Your task to perform on an android device: turn off data saver in the chrome app Image 0: 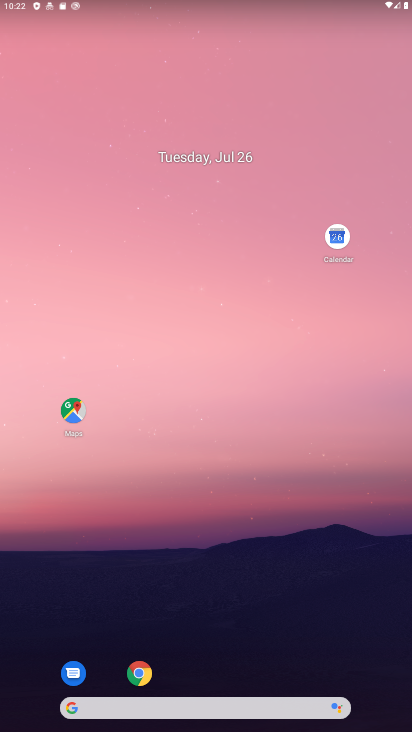
Step 0: click (199, 9)
Your task to perform on an android device: turn off data saver in the chrome app Image 1: 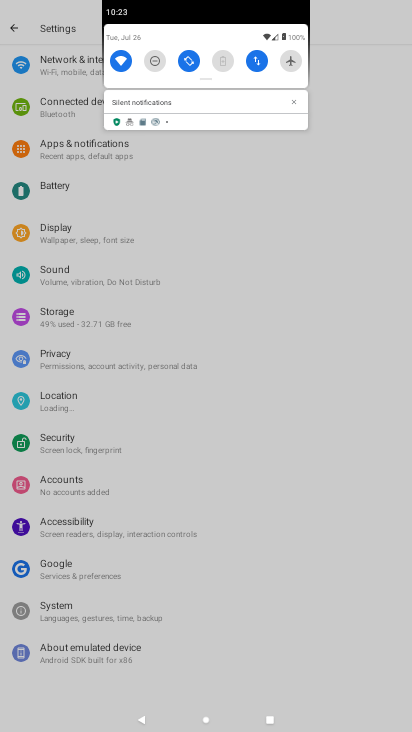
Step 1: click (139, 83)
Your task to perform on an android device: turn off data saver in the chrome app Image 2: 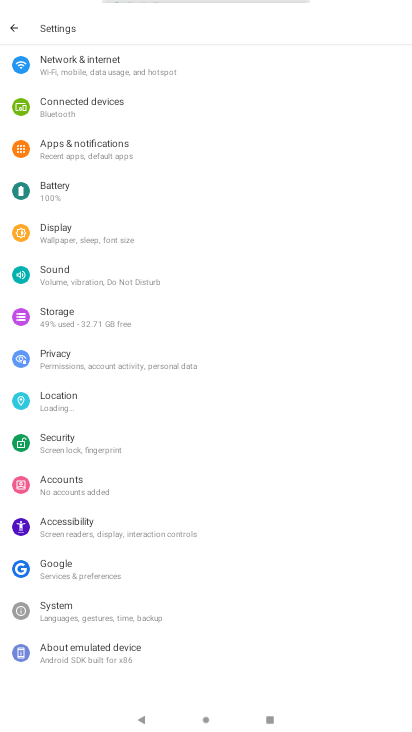
Step 2: click (181, 19)
Your task to perform on an android device: turn off data saver in the chrome app Image 3: 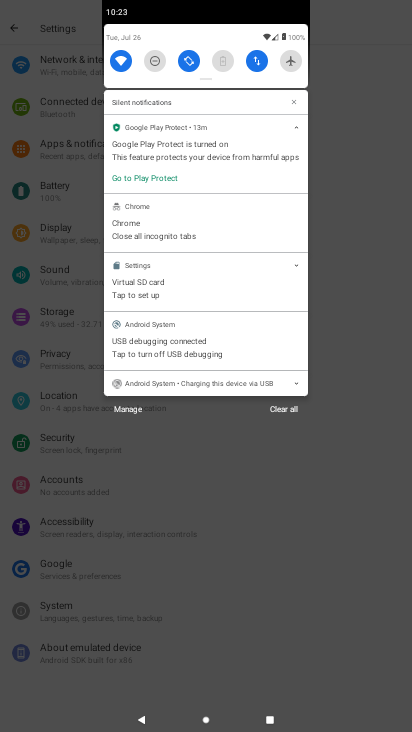
Step 3: click (352, 240)
Your task to perform on an android device: turn off data saver in the chrome app Image 4: 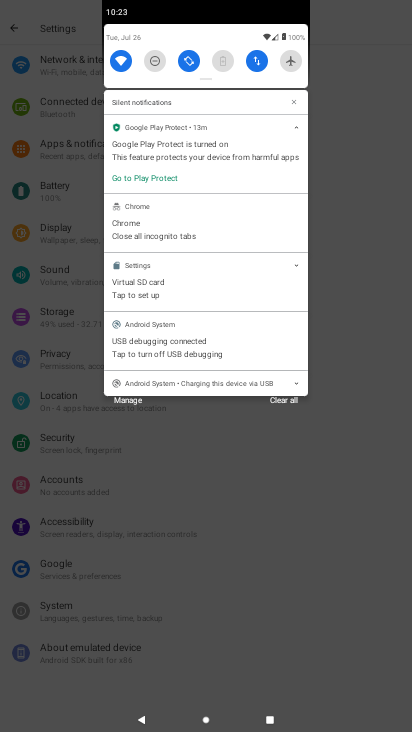
Step 4: click (357, 242)
Your task to perform on an android device: turn off data saver in the chrome app Image 5: 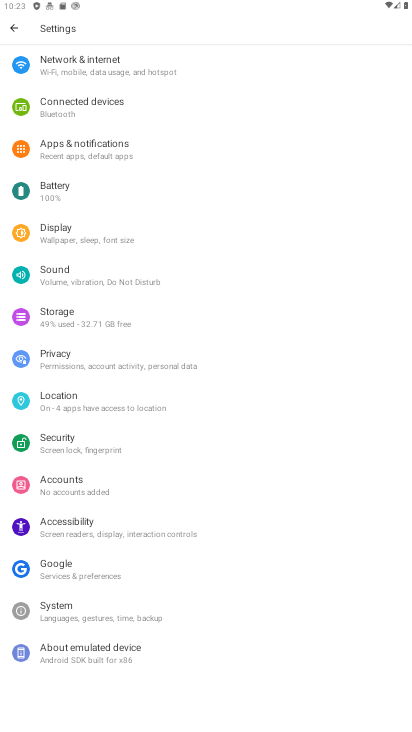
Step 5: click (357, 242)
Your task to perform on an android device: turn off data saver in the chrome app Image 6: 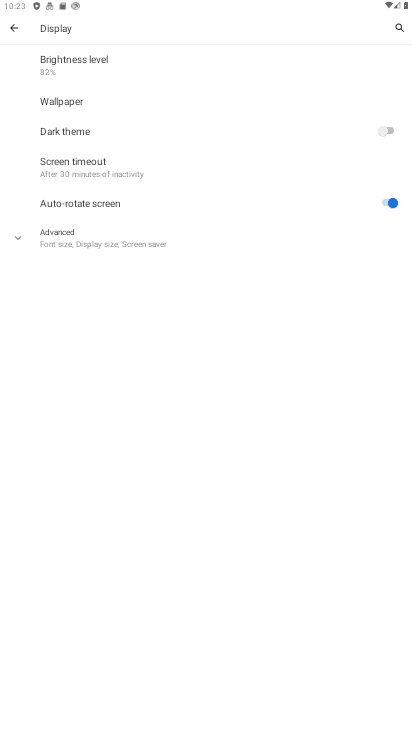
Step 6: click (14, 24)
Your task to perform on an android device: turn off data saver in the chrome app Image 7: 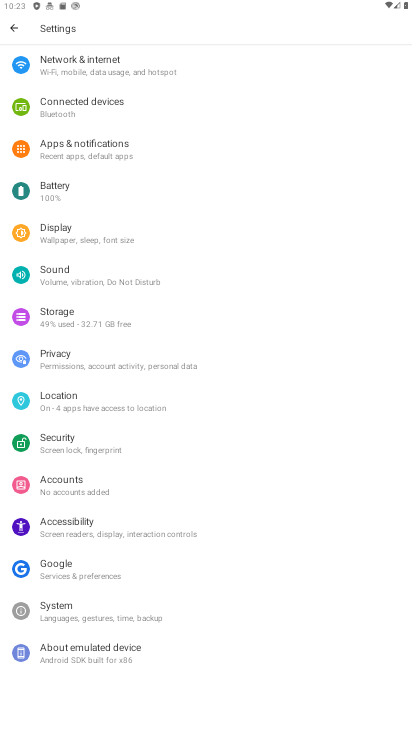
Step 7: drag from (88, 463) to (41, 130)
Your task to perform on an android device: turn off data saver in the chrome app Image 8: 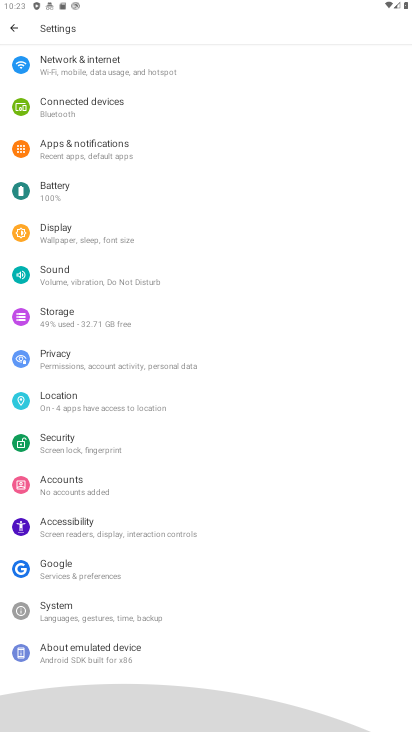
Step 8: drag from (166, 484) to (118, 30)
Your task to perform on an android device: turn off data saver in the chrome app Image 9: 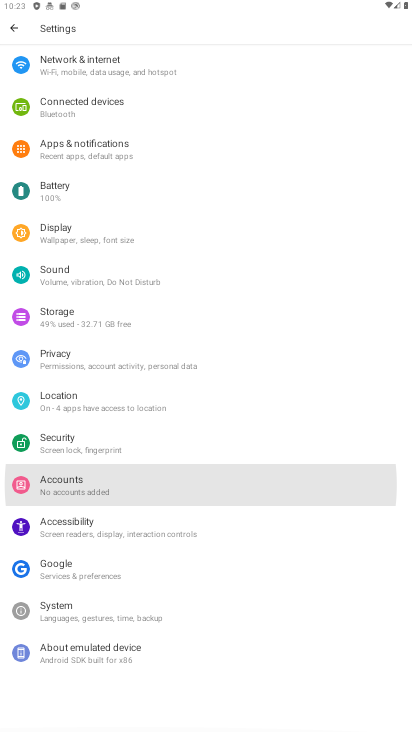
Step 9: drag from (153, 393) to (127, 5)
Your task to perform on an android device: turn off data saver in the chrome app Image 10: 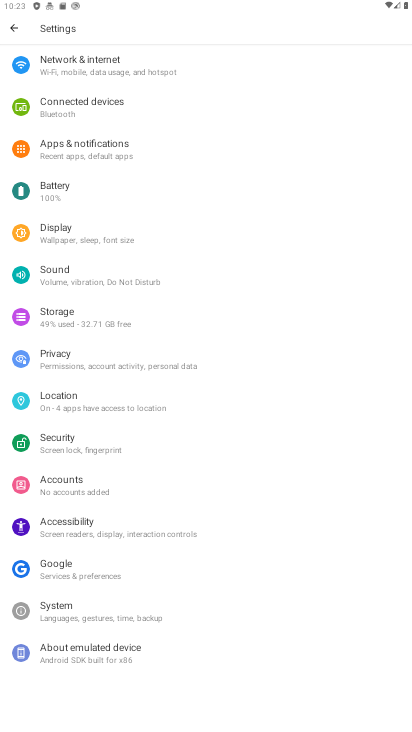
Step 10: click (17, 30)
Your task to perform on an android device: turn off data saver in the chrome app Image 11: 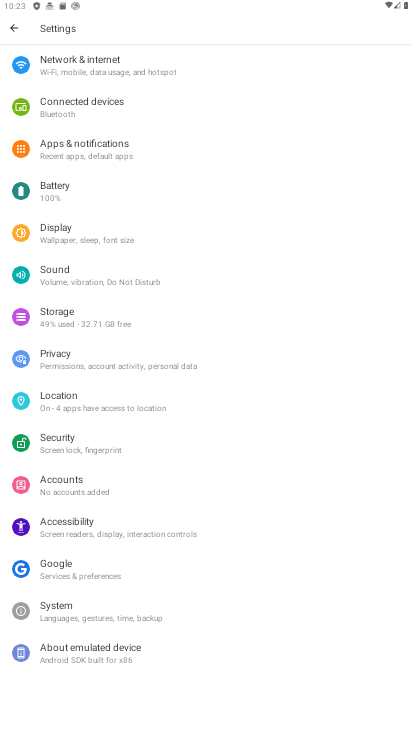
Step 11: click (17, 30)
Your task to perform on an android device: turn off data saver in the chrome app Image 12: 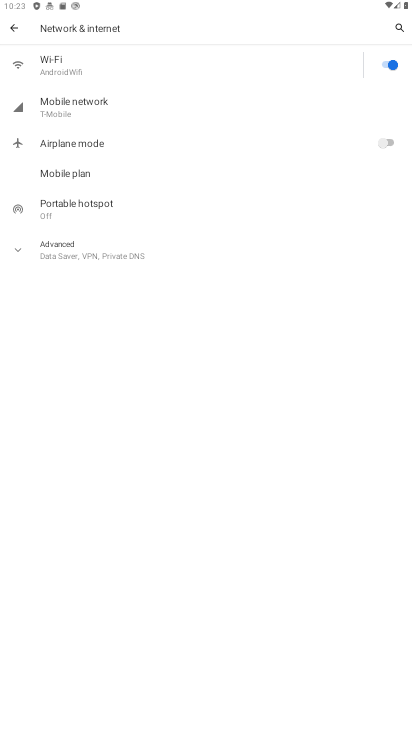
Step 12: click (15, 30)
Your task to perform on an android device: turn off data saver in the chrome app Image 13: 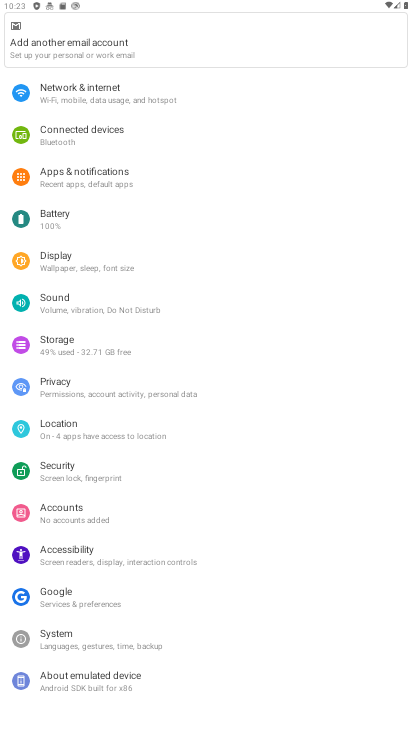
Step 13: press back button
Your task to perform on an android device: turn off data saver in the chrome app Image 14: 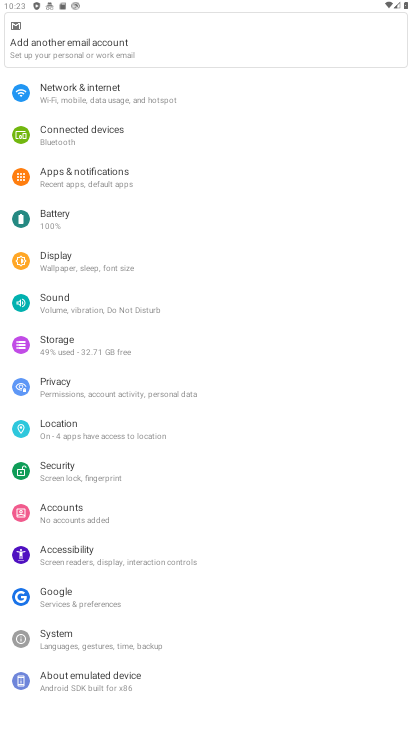
Step 14: press back button
Your task to perform on an android device: turn off data saver in the chrome app Image 15: 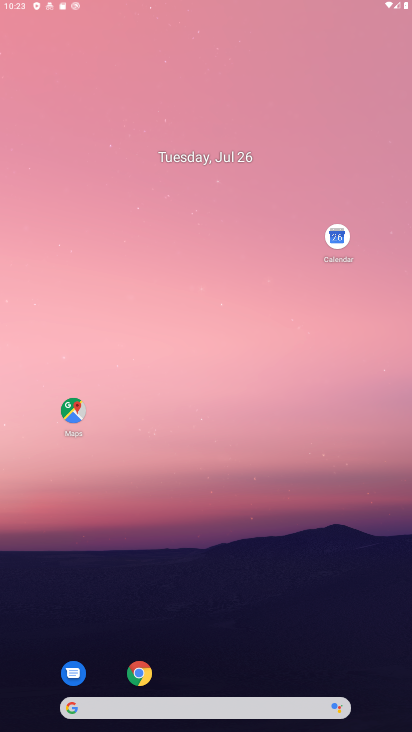
Step 15: press back button
Your task to perform on an android device: turn off data saver in the chrome app Image 16: 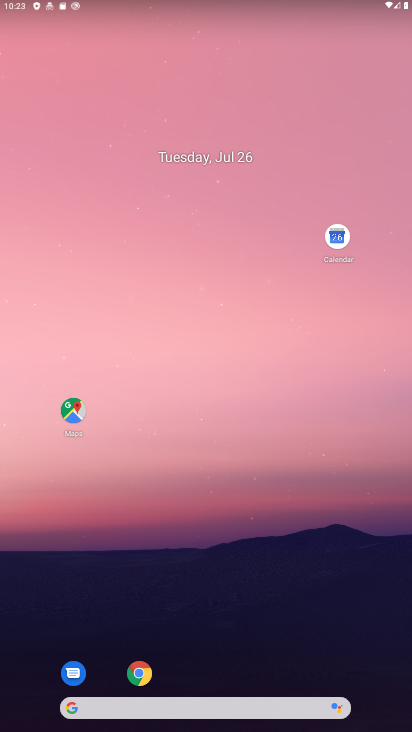
Step 16: drag from (206, 539) to (111, 11)
Your task to perform on an android device: turn off data saver in the chrome app Image 17: 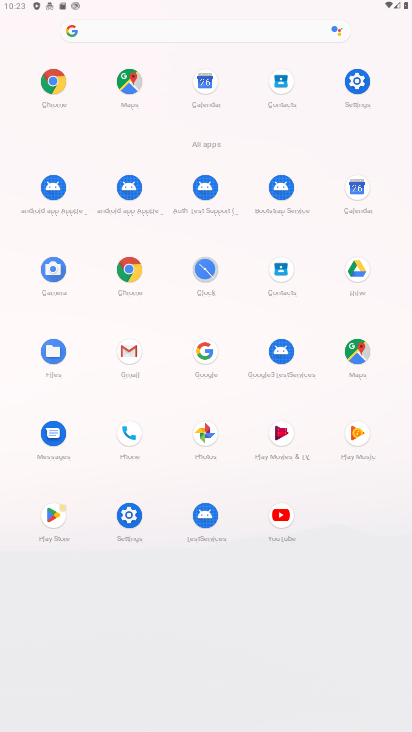
Step 17: click (174, 41)
Your task to perform on an android device: turn off data saver in the chrome app Image 18: 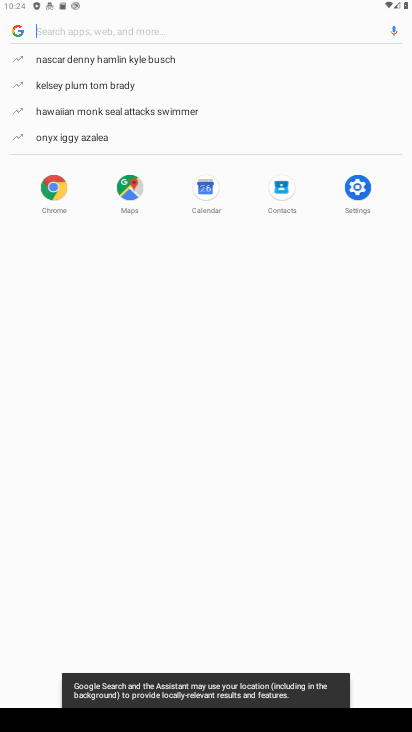
Step 18: click (44, 85)
Your task to perform on an android device: turn off data saver in the chrome app Image 19: 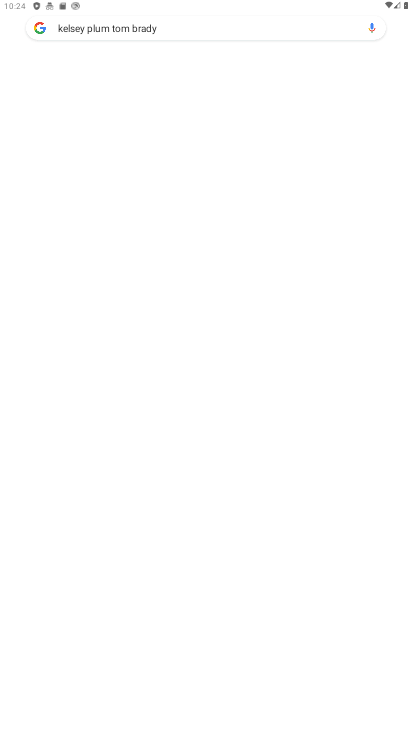
Step 19: click (52, 182)
Your task to perform on an android device: turn off data saver in the chrome app Image 20: 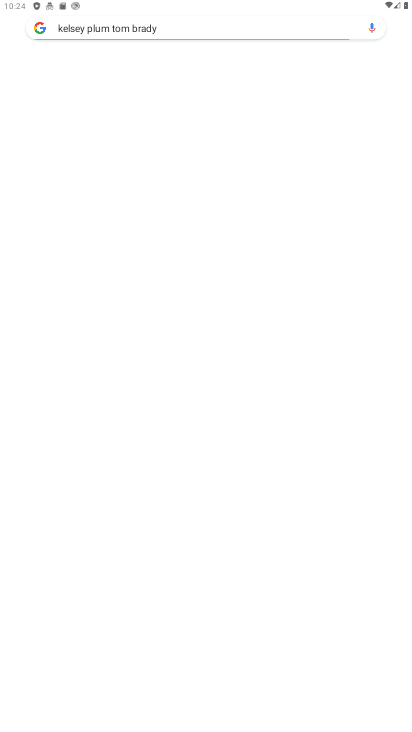
Step 20: click (53, 181)
Your task to perform on an android device: turn off data saver in the chrome app Image 21: 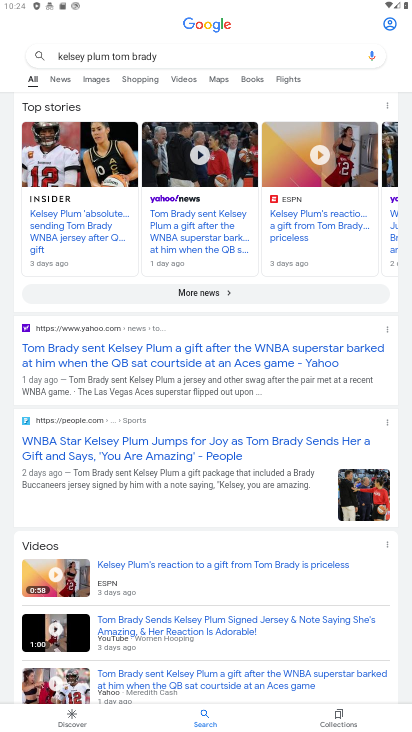
Step 21: press back button
Your task to perform on an android device: turn off data saver in the chrome app Image 22: 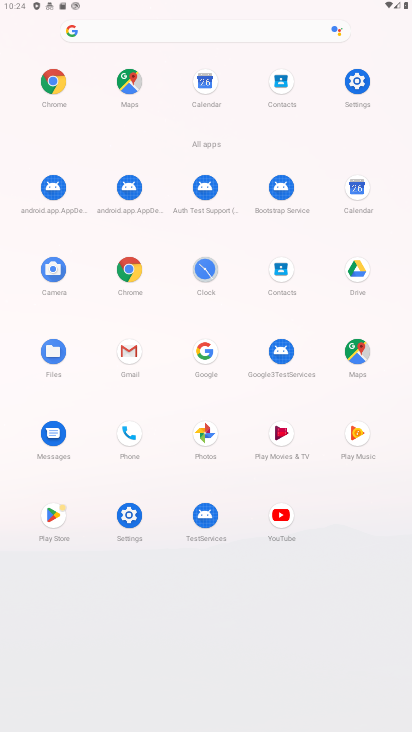
Step 22: click (53, 86)
Your task to perform on an android device: turn off data saver in the chrome app Image 23: 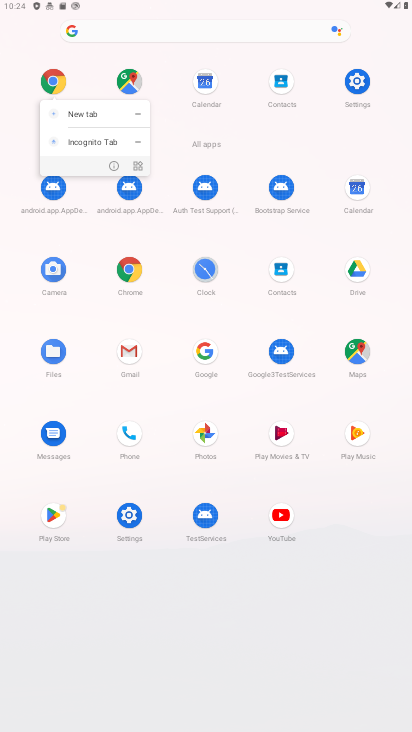
Step 23: click (53, 79)
Your task to perform on an android device: turn off data saver in the chrome app Image 24: 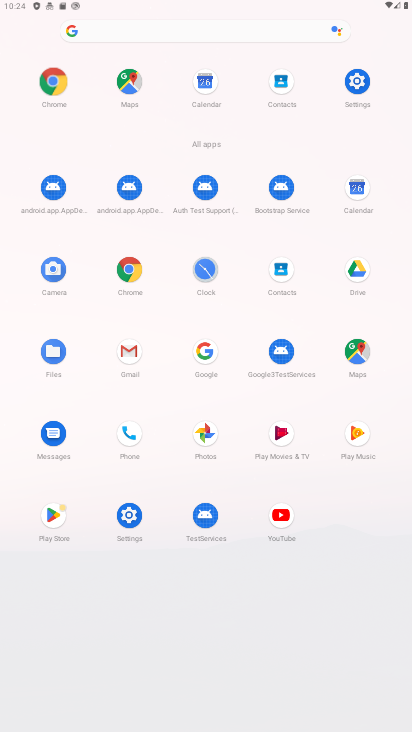
Step 24: click (57, 85)
Your task to perform on an android device: turn off data saver in the chrome app Image 25: 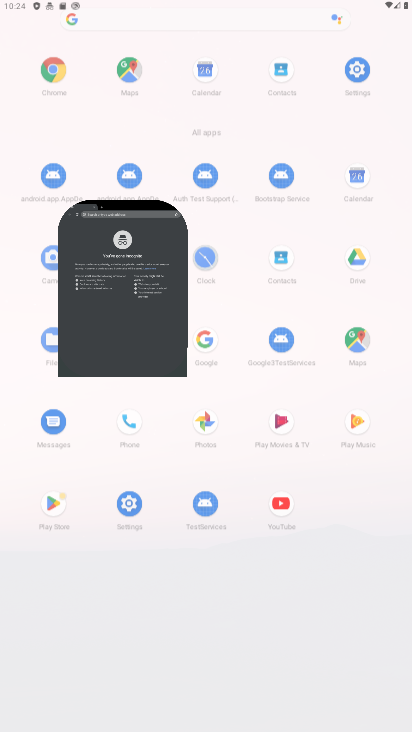
Step 25: click (56, 93)
Your task to perform on an android device: turn off data saver in the chrome app Image 26: 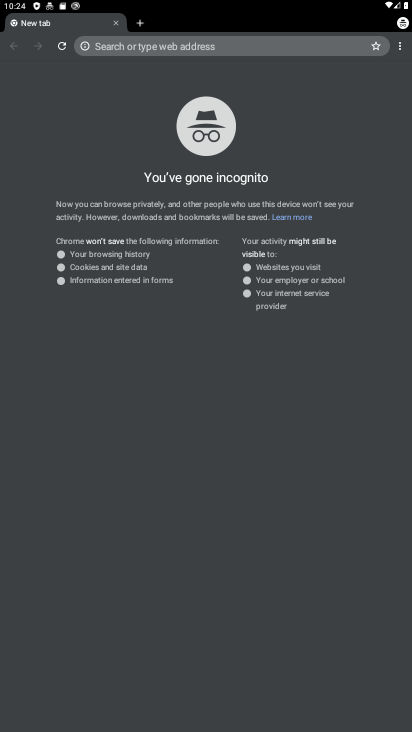
Step 26: drag from (405, 49) to (303, 184)
Your task to perform on an android device: turn off data saver in the chrome app Image 27: 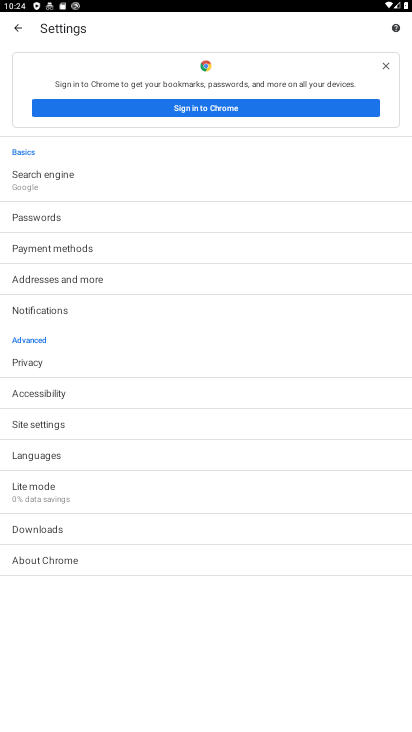
Step 27: click (39, 485)
Your task to perform on an android device: turn off data saver in the chrome app Image 28: 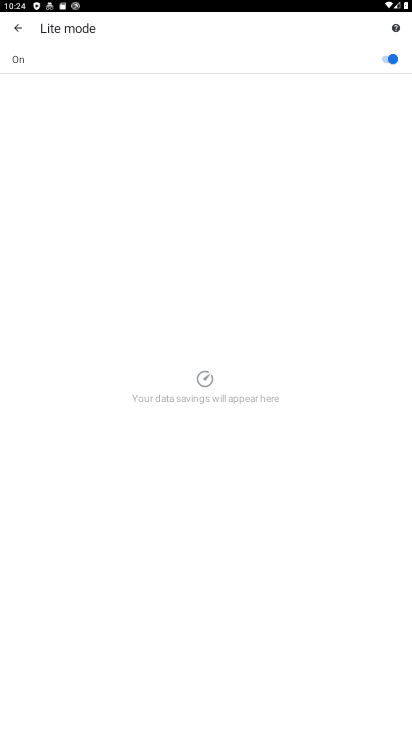
Step 28: click (37, 488)
Your task to perform on an android device: turn off data saver in the chrome app Image 29: 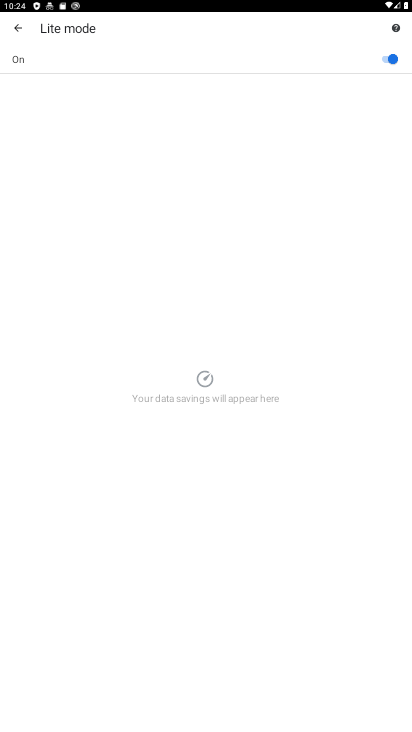
Step 29: click (398, 57)
Your task to perform on an android device: turn off data saver in the chrome app Image 30: 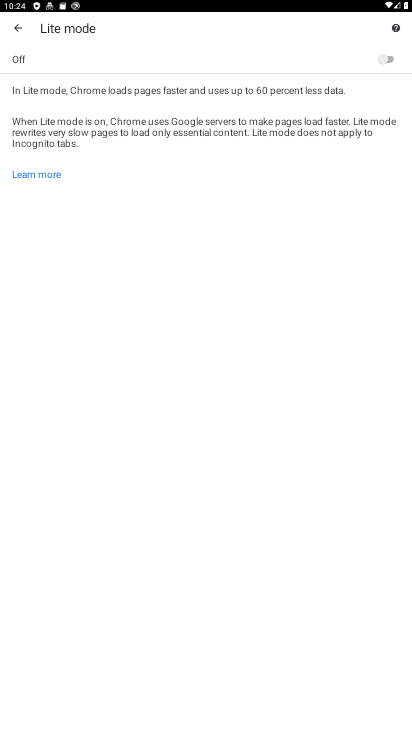
Step 30: task complete